Your task to perform on an android device: turn off location Image 0: 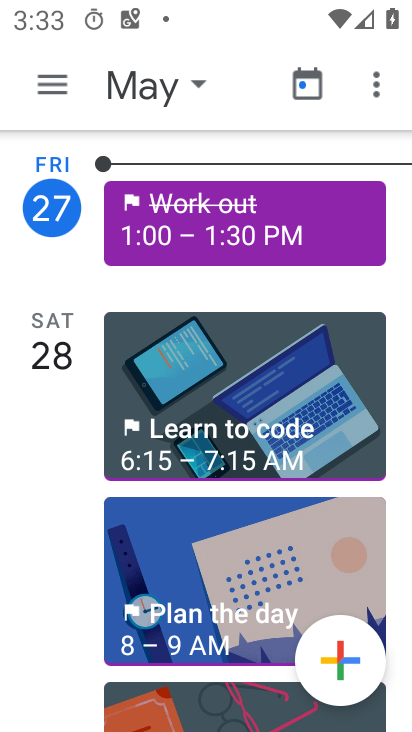
Step 0: press home button
Your task to perform on an android device: turn off location Image 1: 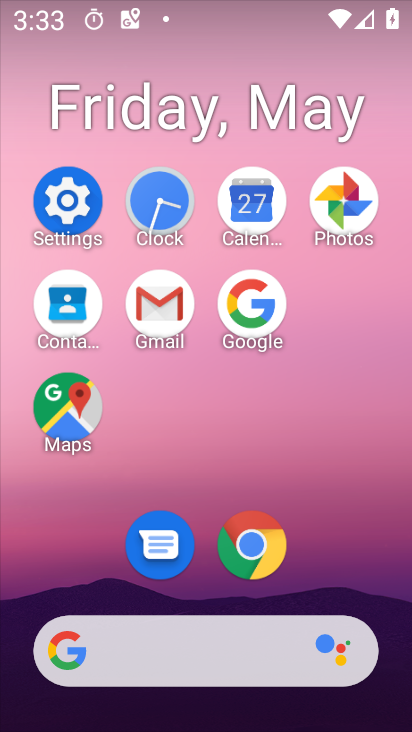
Step 1: click (78, 198)
Your task to perform on an android device: turn off location Image 2: 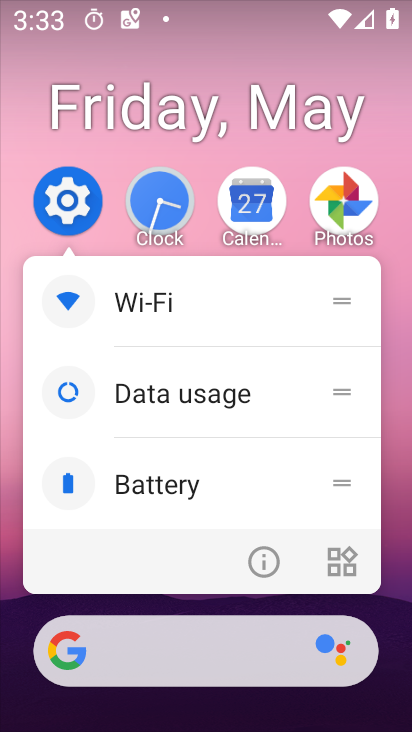
Step 2: click (89, 203)
Your task to perform on an android device: turn off location Image 3: 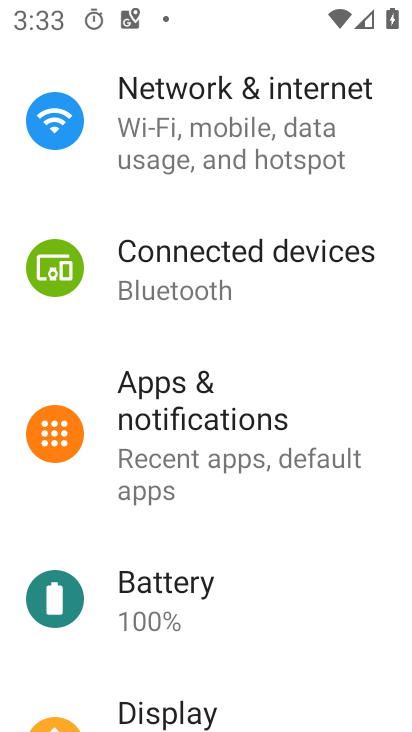
Step 3: drag from (285, 637) to (330, 214)
Your task to perform on an android device: turn off location Image 4: 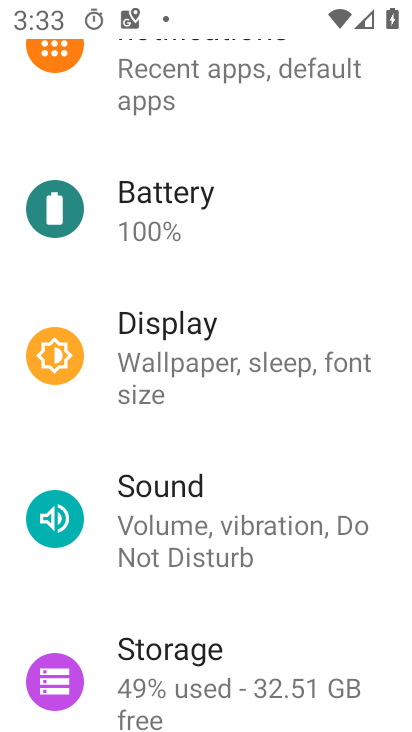
Step 4: drag from (246, 646) to (286, 246)
Your task to perform on an android device: turn off location Image 5: 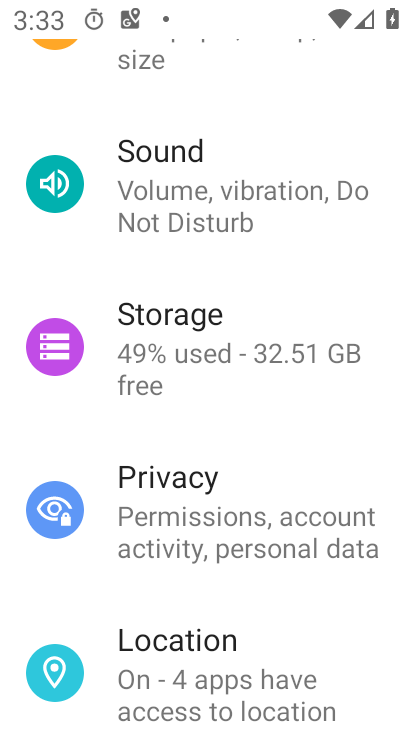
Step 5: click (271, 639)
Your task to perform on an android device: turn off location Image 6: 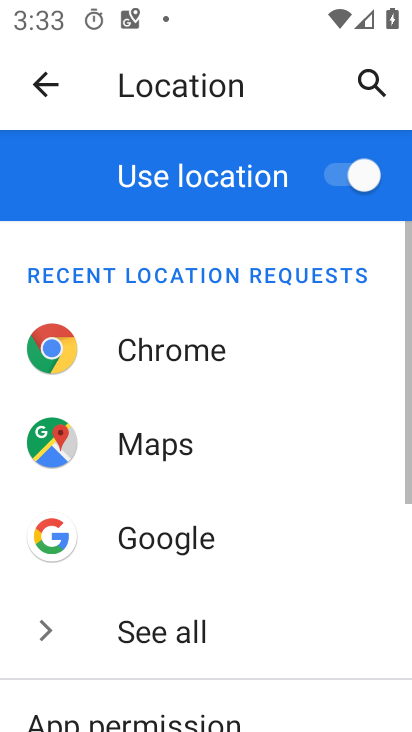
Step 6: click (367, 191)
Your task to perform on an android device: turn off location Image 7: 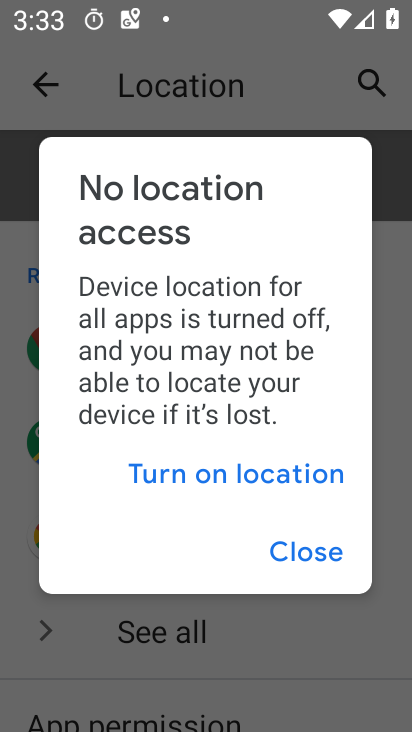
Step 7: click (310, 551)
Your task to perform on an android device: turn off location Image 8: 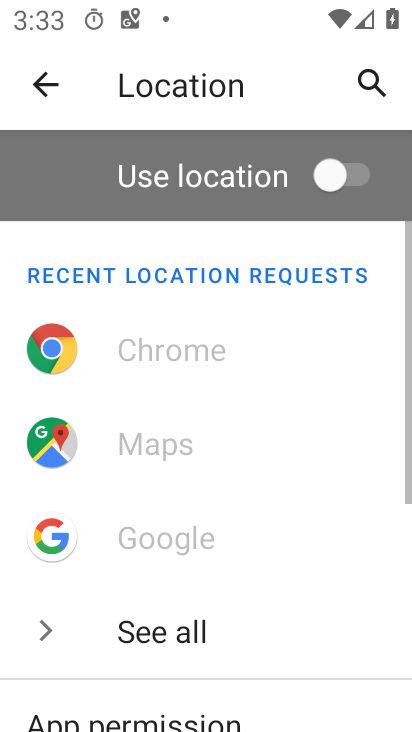
Step 8: task complete